Your task to perform on an android device: Check the weather Image 0: 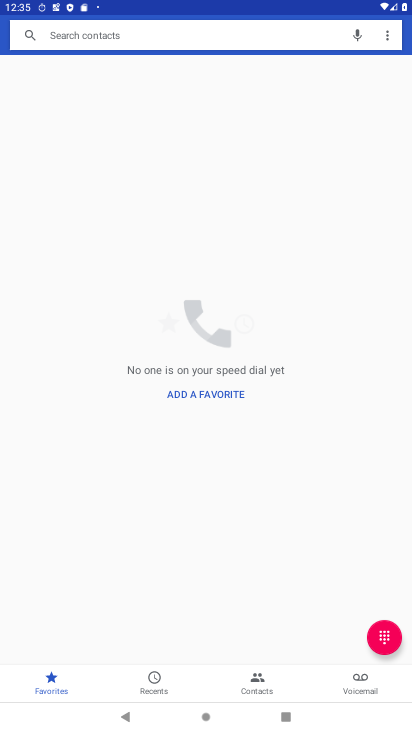
Step 0: press home button
Your task to perform on an android device: Check the weather Image 1: 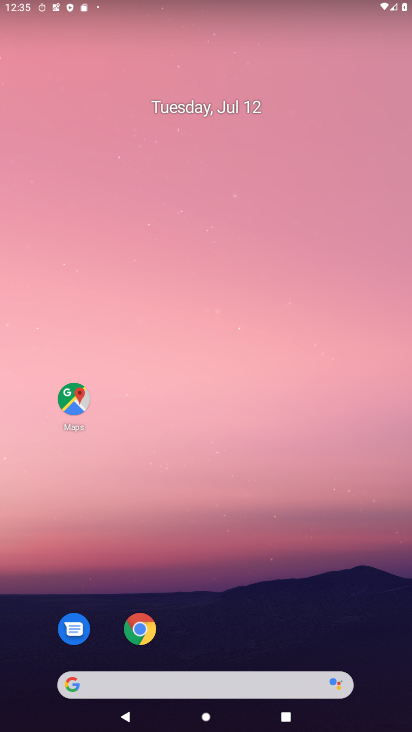
Step 1: drag from (378, 726) to (162, 193)
Your task to perform on an android device: Check the weather Image 2: 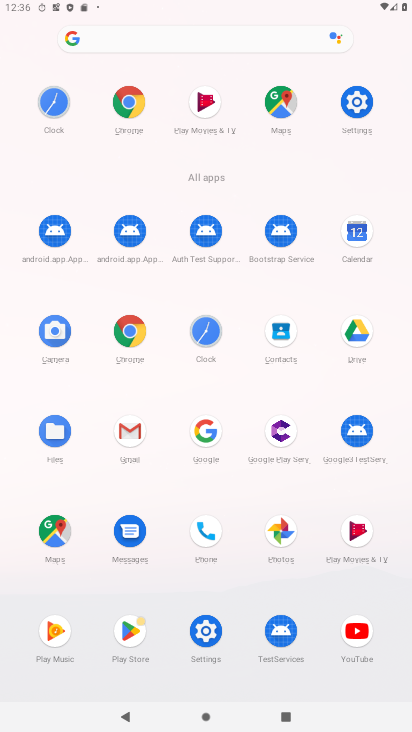
Step 2: click (143, 124)
Your task to perform on an android device: Check the weather Image 3: 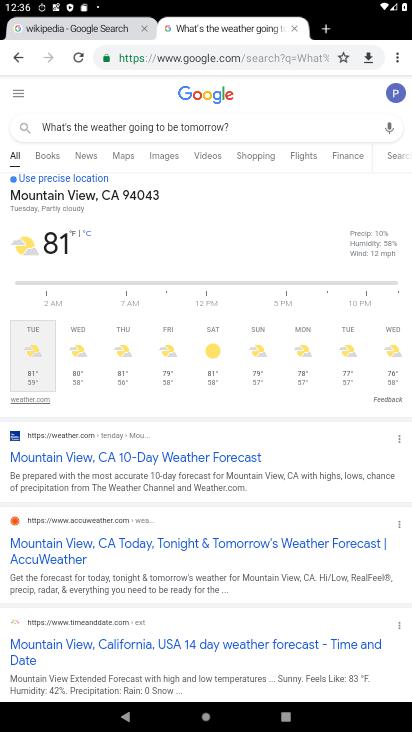
Step 3: click (312, 56)
Your task to perform on an android device: Check the weather Image 4: 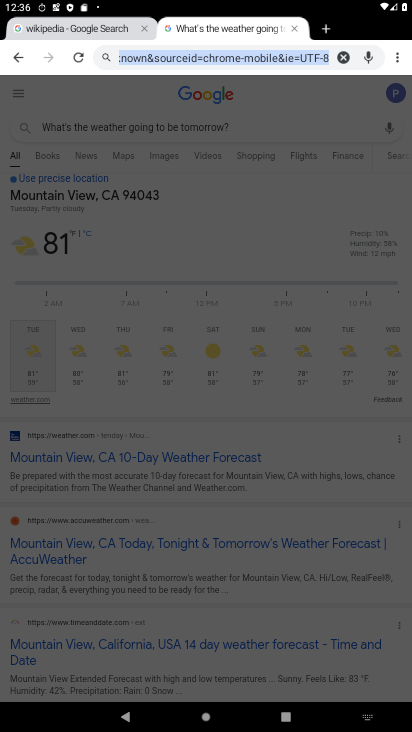
Step 4: click (347, 54)
Your task to perform on an android device: Check the weather Image 5: 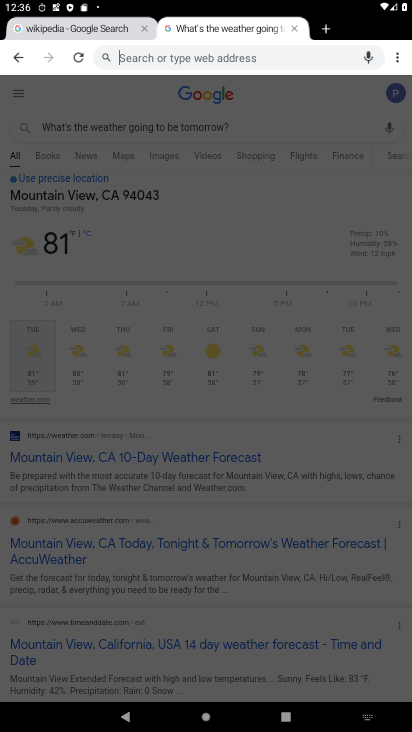
Step 5: type "What's the weather going to be tomorrow?"
Your task to perform on an android device: Check the weather Image 6: 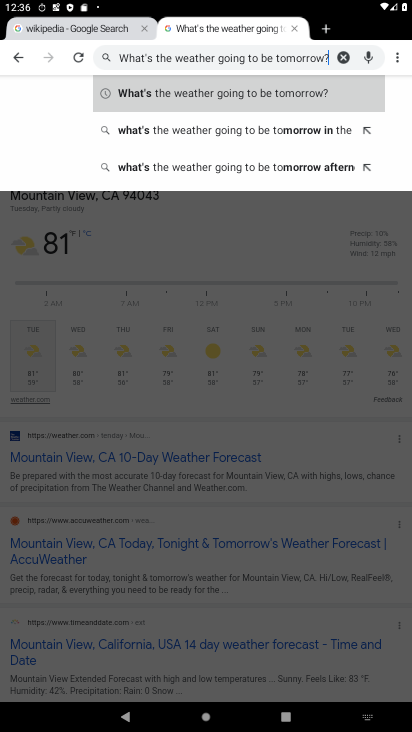
Step 6: click (159, 91)
Your task to perform on an android device: Check the weather Image 7: 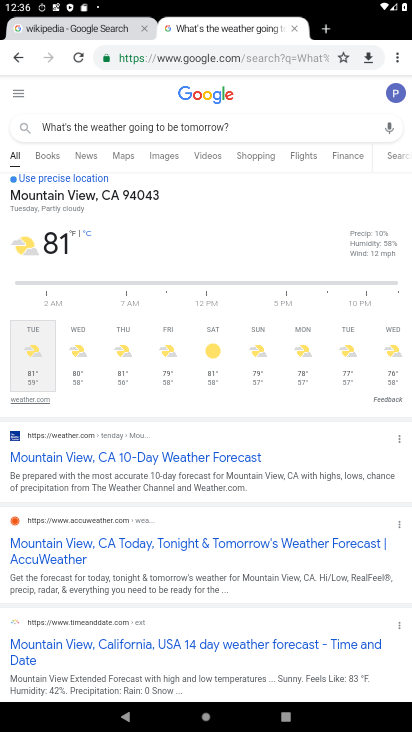
Step 7: task complete